Your task to perform on an android device: Open the calendar app, open the side menu, and click the "Day" option Image 0: 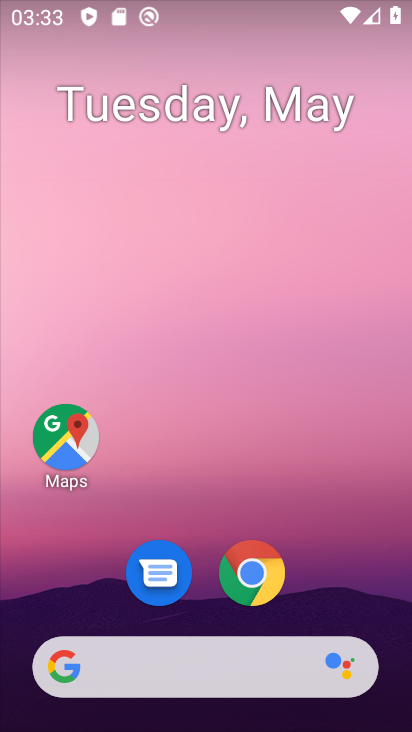
Step 0: drag from (110, 502) to (186, 93)
Your task to perform on an android device: Open the calendar app, open the side menu, and click the "Day" option Image 1: 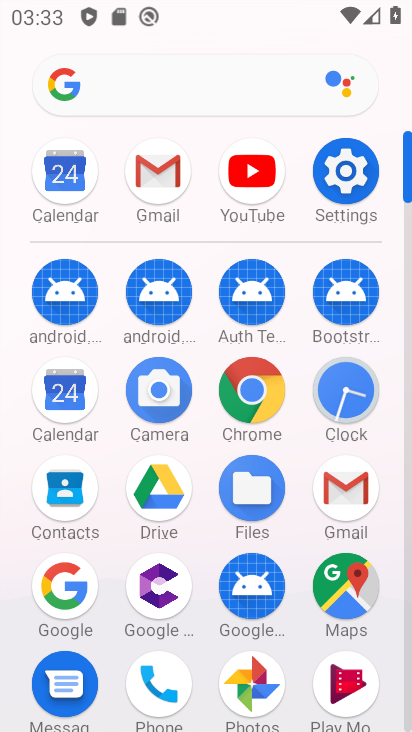
Step 1: click (65, 170)
Your task to perform on an android device: Open the calendar app, open the side menu, and click the "Day" option Image 2: 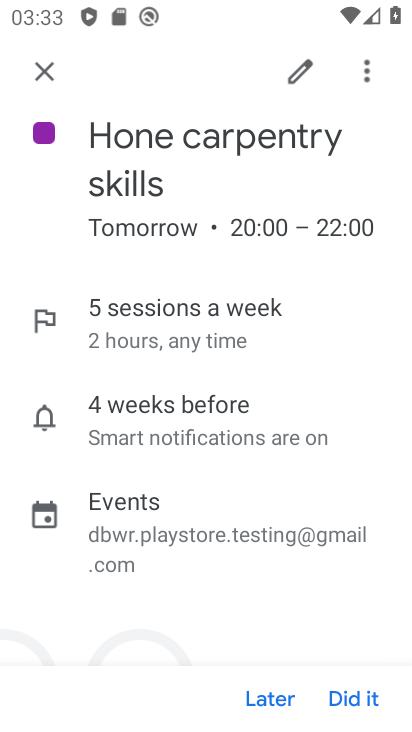
Step 2: click (37, 57)
Your task to perform on an android device: Open the calendar app, open the side menu, and click the "Day" option Image 3: 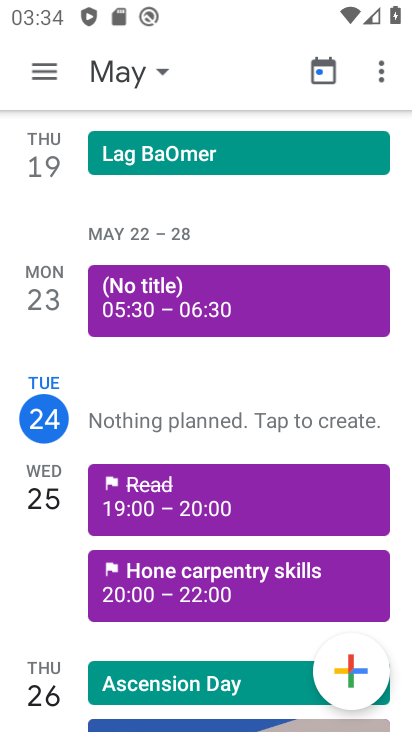
Step 3: click (35, 66)
Your task to perform on an android device: Open the calendar app, open the side menu, and click the "Day" option Image 4: 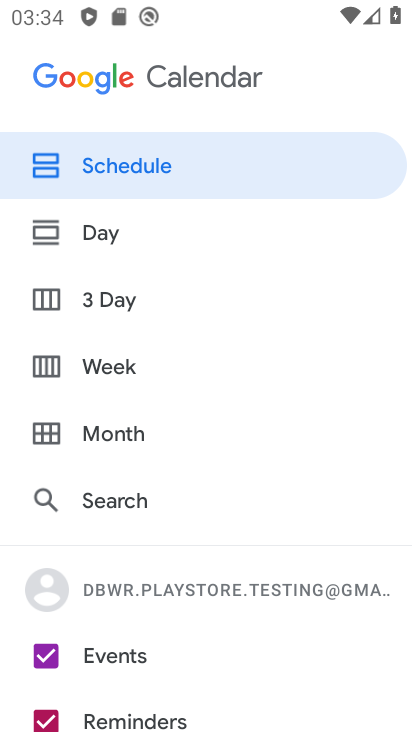
Step 4: click (101, 224)
Your task to perform on an android device: Open the calendar app, open the side menu, and click the "Day" option Image 5: 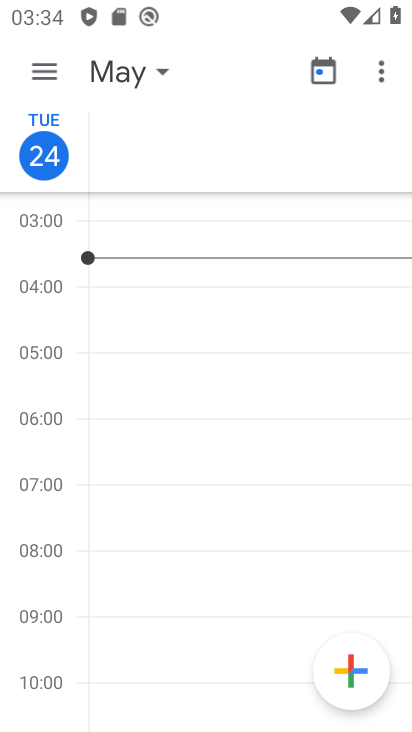
Step 5: task complete